Your task to perform on an android device: search for starred emails in the gmail app Image 0: 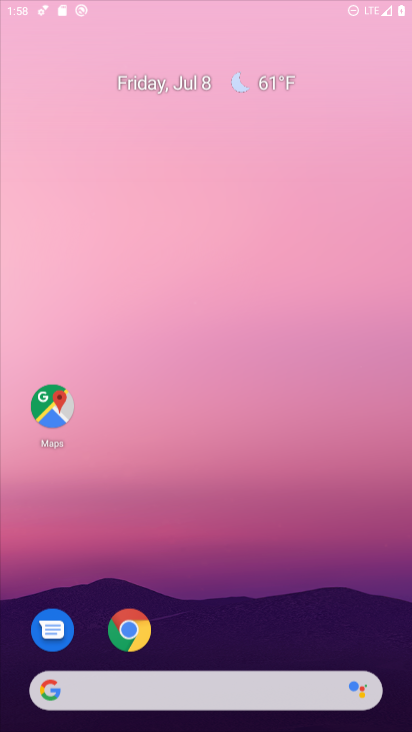
Step 0: drag from (356, 213) to (306, 35)
Your task to perform on an android device: search for starred emails in the gmail app Image 1: 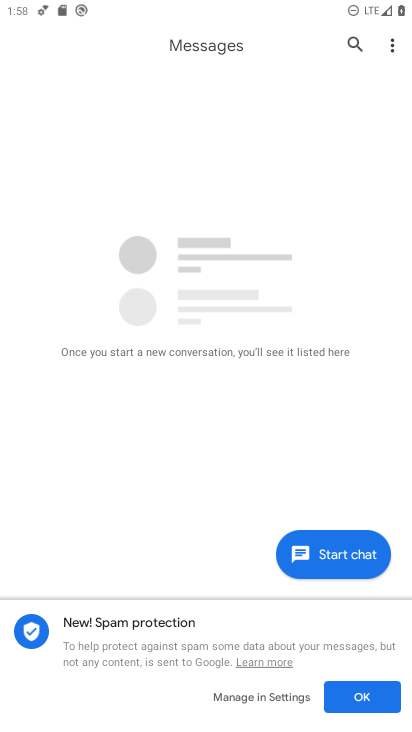
Step 1: press home button
Your task to perform on an android device: search for starred emails in the gmail app Image 2: 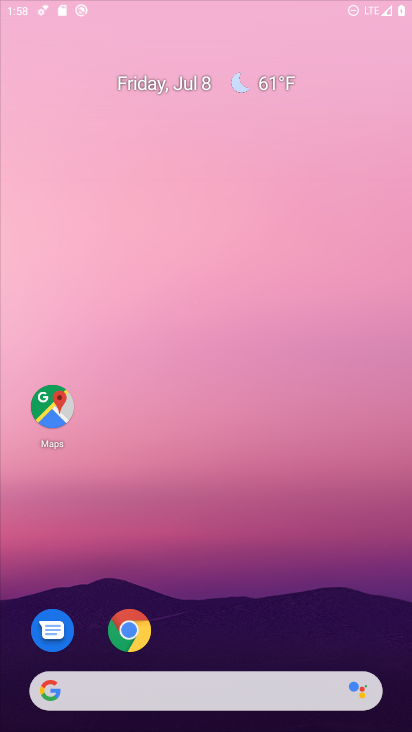
Step 2: drag from (407, 691) to (344, 8)
Your task to perform on an android device: search for starred emails in the gmail app Image 3: 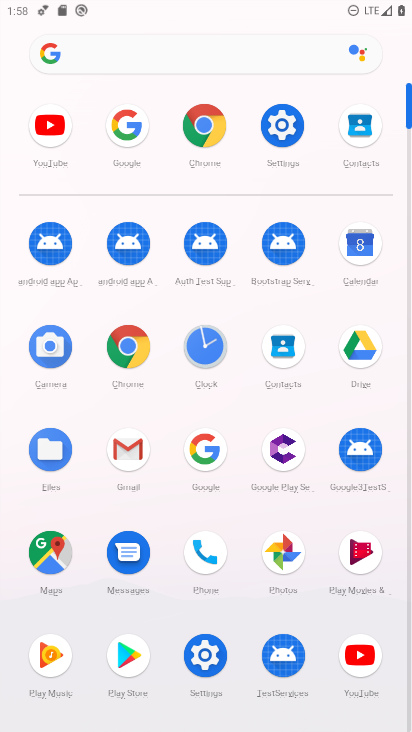
Step 3: click (138, 457)
Your task to perform on an android device: search for starred emails in the gmail app Image 4: 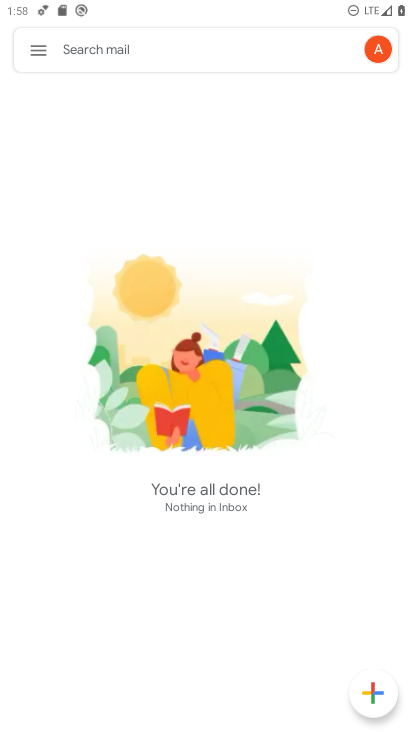
Step 4: click (45, 56)
Your task to perform on an android device: search for starred emails in the gmail app Image 5: 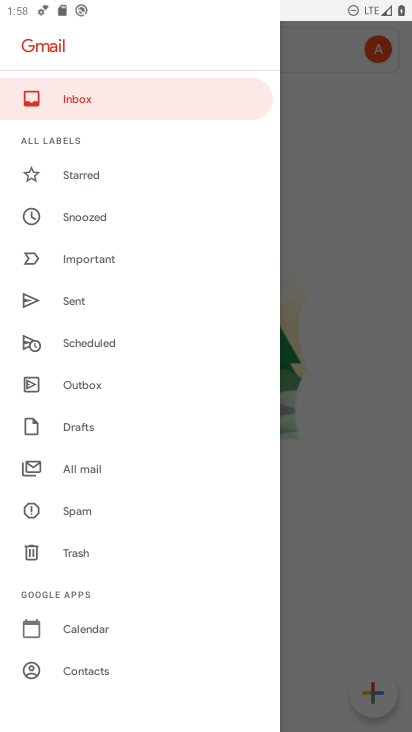
Step 5: click (90, 180)
Your task to perform on an android device: search for starred emails in the gmail app Image 6: 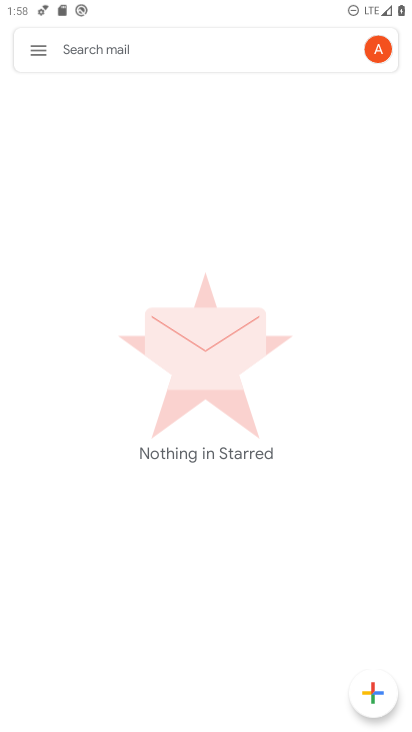
Step 6: task complete